Your task to perform on an android device: turn off priority inbox in the gmail app Image 0: 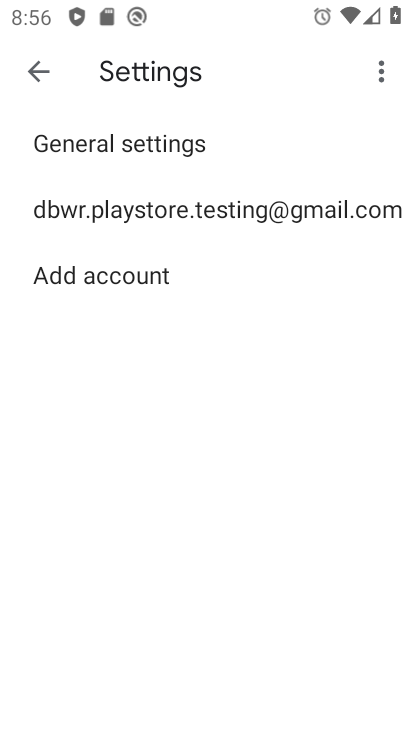
Step 0: press home button
Your task to perform on an android device: turn off priority inbox in the gmail app Image 1: 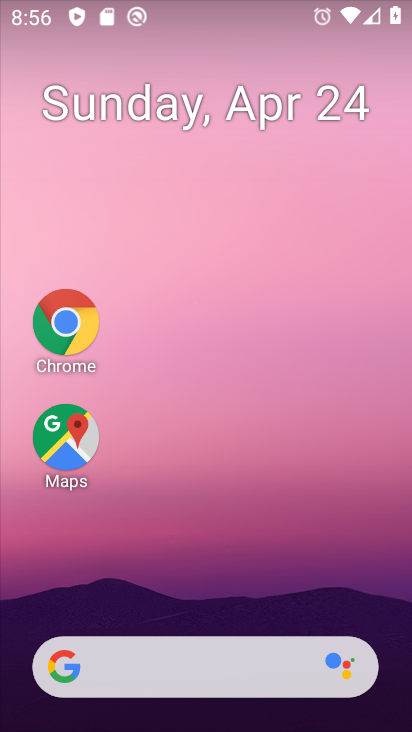
Step 1: drag from (232, 546) to (160, 7)
Your task to perform on an android device: turn off priority inbox in the gmail app Image 2: 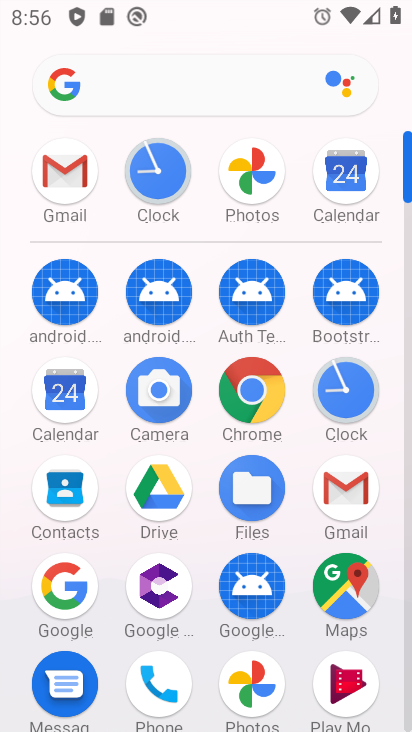
Step 2: click (332, 497)
Your task to perform on an android device: turn off priority inbox in the gmail app Image 3: 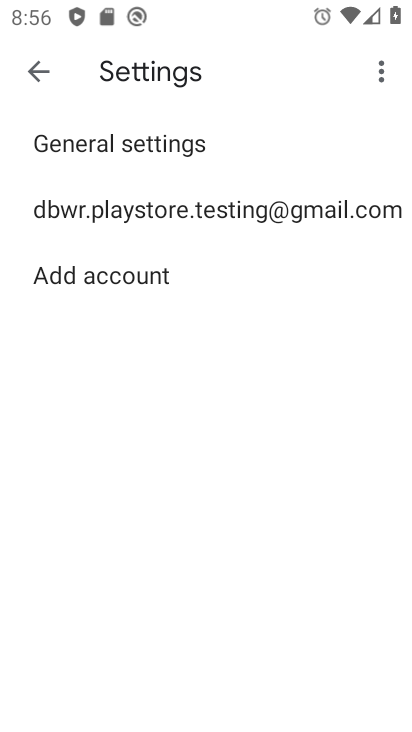
Step 3: click (36, 68)
Your task to perform on an android device: turn off priority inbox in the gmail app Image 4: 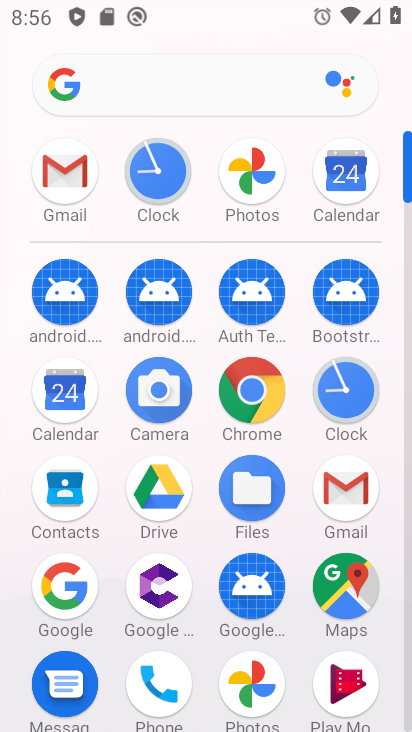
Step 4: click (353, 491)
Your task to perform on an android device: turn off priority inbox in the gmail app Image 5: 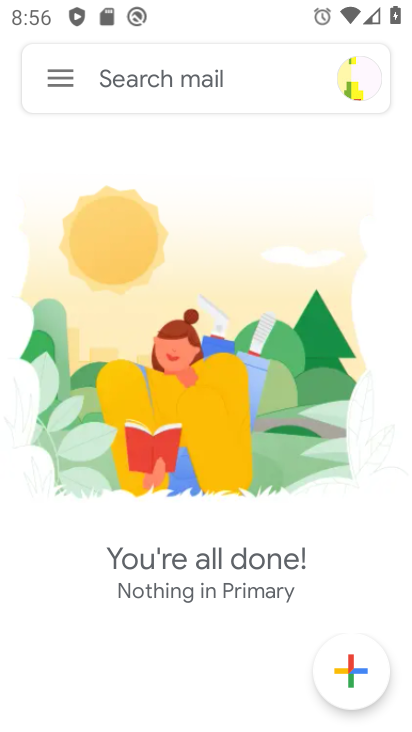
Step 5: click (55, 78)
Your task to perform on an android device: turn off priority inbox in the gmail app Image 6: 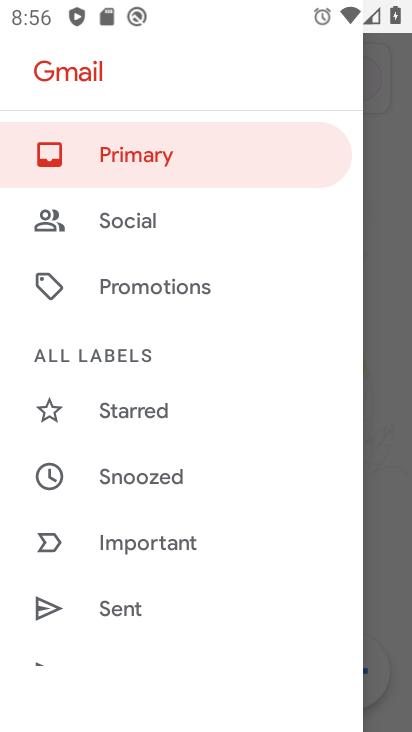
Step 6: drag from (188, 567) to (184, 372)
Your task to perform on an android device: turn off priority inbox in the gmail app Image 7: 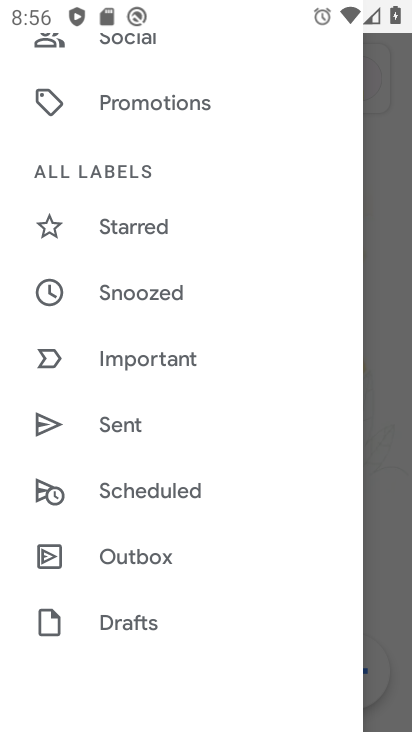
Step 7: drag from (190, 541) to (108, 109)
Your task to perform on an android device: turn off priority inbox in the gmail app Image 8: 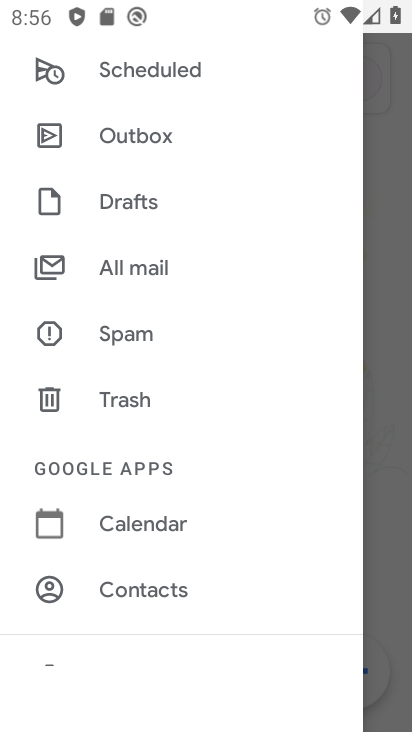
Step 8: drag from (140, 546) to (66, 90)
Your task to perform on an android device: turn off priority inbox in the gmail app Image 9: 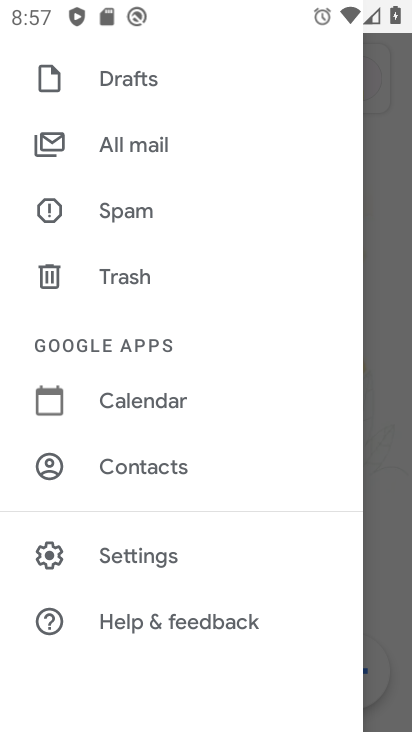
Step 9: click (122, 548)
Your task to perform on an android device: turn off priority inbox in the gmail app Image 10: 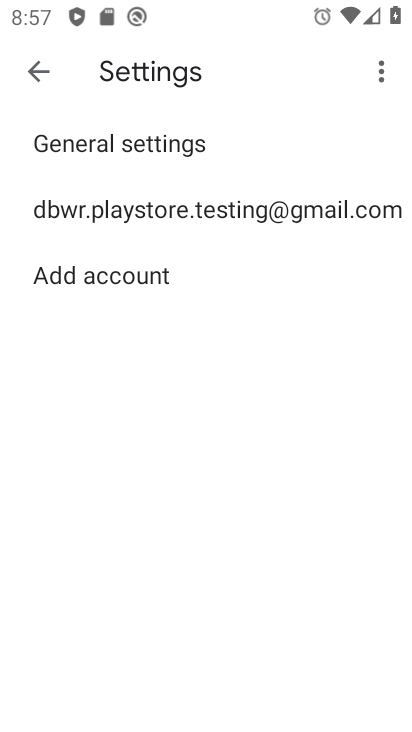
Step 10: click (130, 206)
Your task to perform on an android device: turn off priority inbox in the gmail app Image 11: 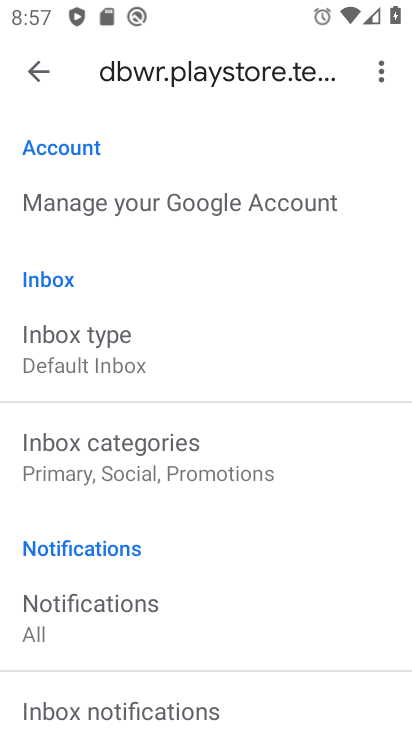
Step 11: click (94, 353)
Your task to perform on an android device: turn off priority inbox in the gmail app Image 12: 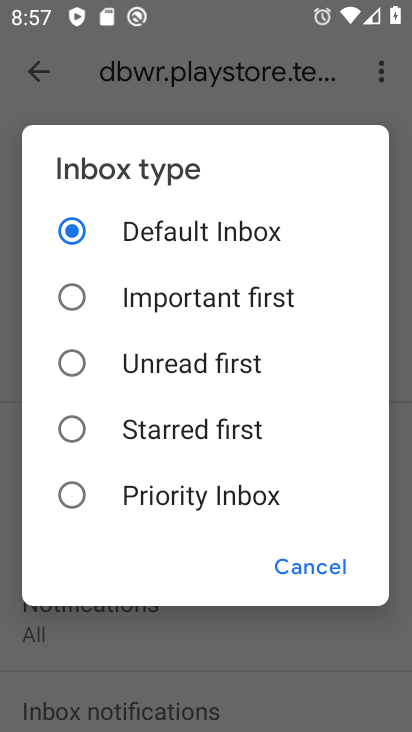
Step 12: task complete